Your task to perform on an android device: turn on data saver in the chrome app Image 0: 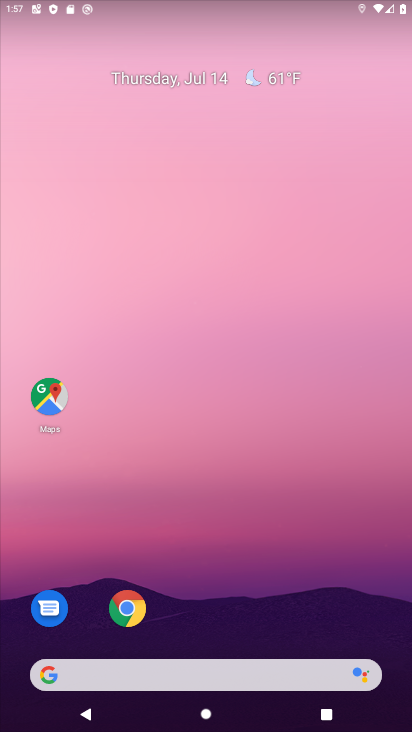
Step 0: click (125, 610)
Your task to perform on an android device: turn on data saver in the chrome app Image 1: 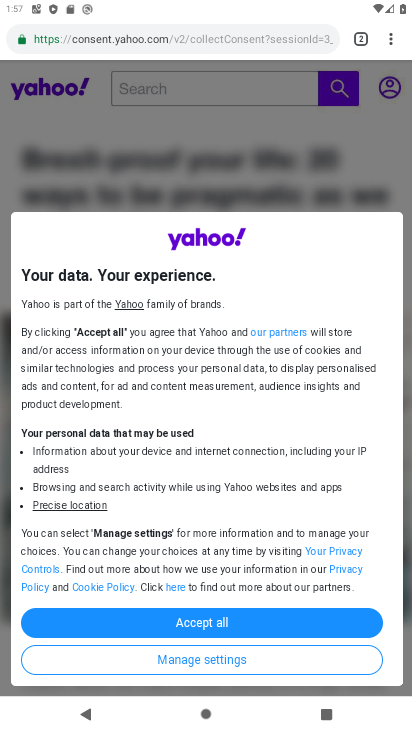
Step 1: click (389, 41)
Your task to perform on an android device: turn on data saver in the chrome app Image 2: 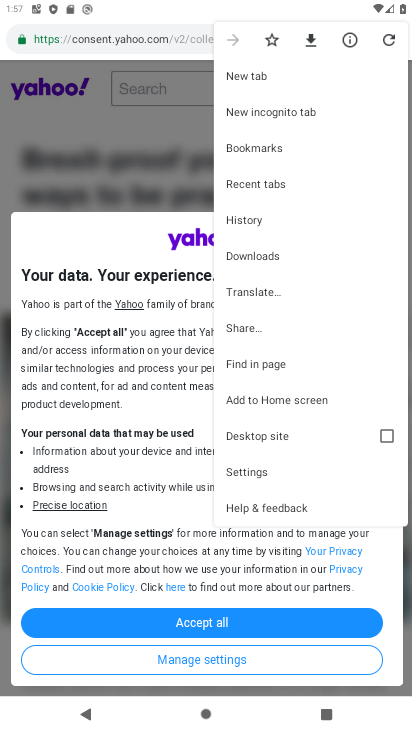
Step 2: click (250, 472)
Your task to perform on an android device: turn on data saver in the chrome app Image 3: 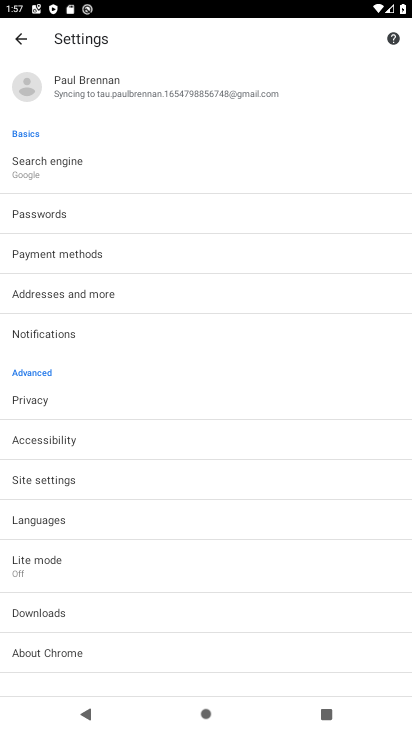
Step 3: click (46, 559)
Your task to perform on an android device: turn on data saver in the chrome app Image 4: 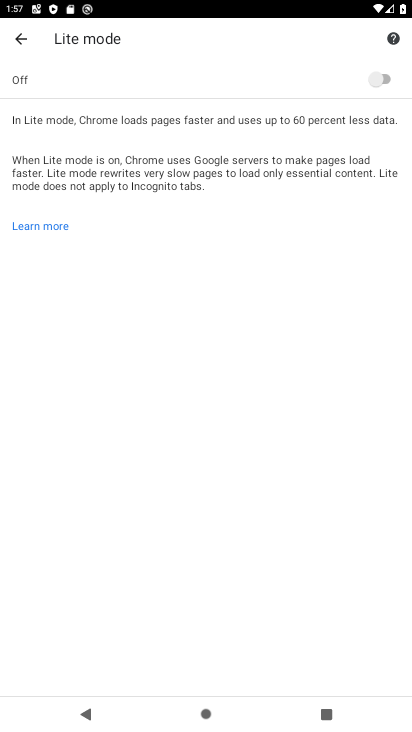
Step 4: click (373, 80)
Your task to perform on an android device: turn on data saver in the chrome app Image 5: 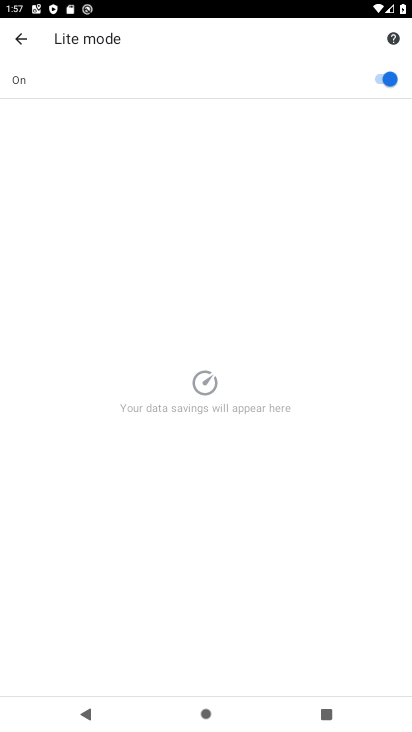
Step 5: task complete